Your task to perform on an android device: turn off location Image 0: 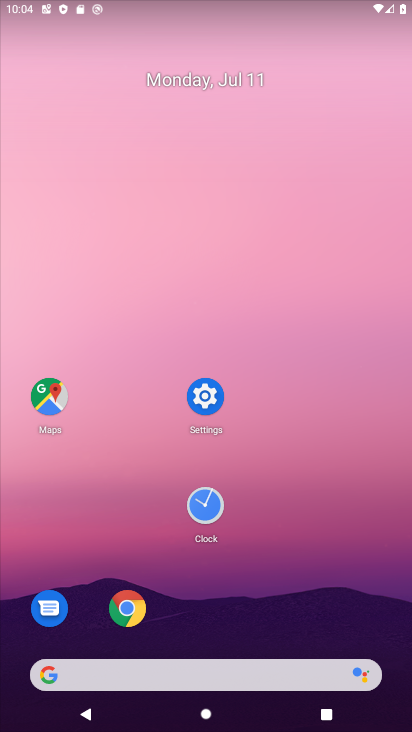
Step 0: click (191, 406)
Your task to perform on an android device: turn off location Image 1: 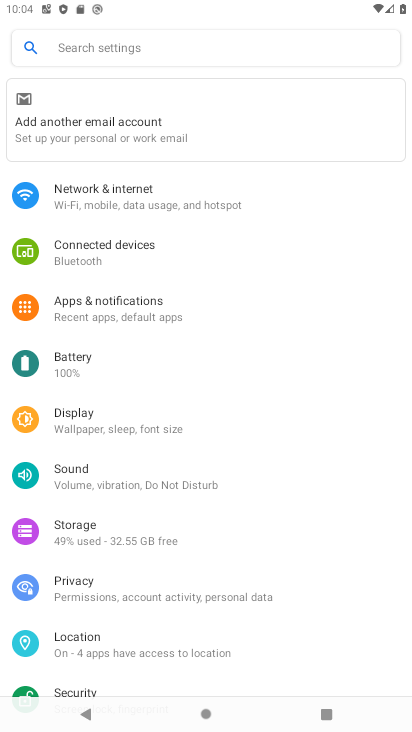
Step 1: click (86, 631)
Your task to perform on an android device: turn off location Image 2: 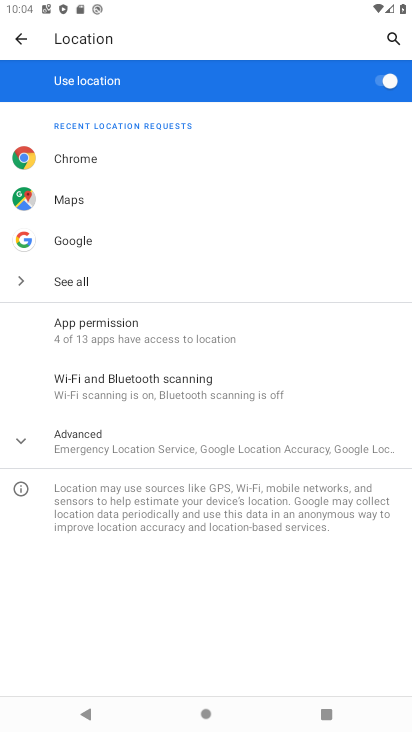
Step 2: click (380, 83)
Your task to perform on an android device: turn off location Image 3: 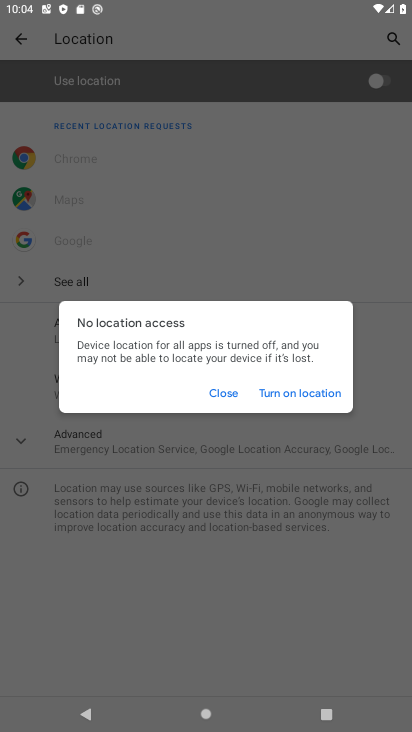
Step 3: click (227, 387)
Your task to perform on an android device: turn off location Image 4: 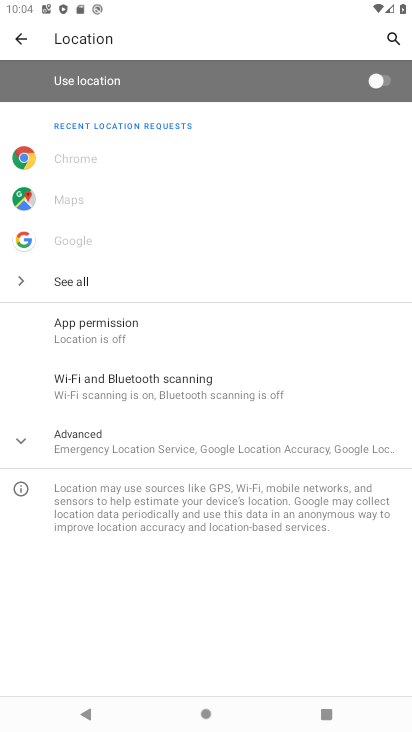
Step 4: task complete